Your task to perform on an android device: Open Wikipedia Image 0: 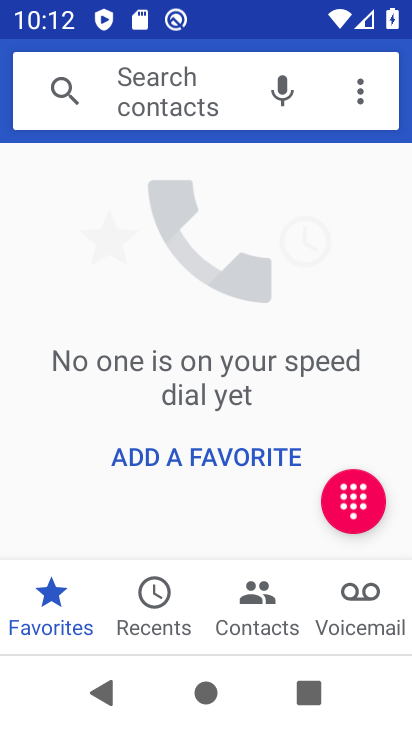
Step 0: press back button
Your task to perform on an android device: Open Wikipedia Image 1: 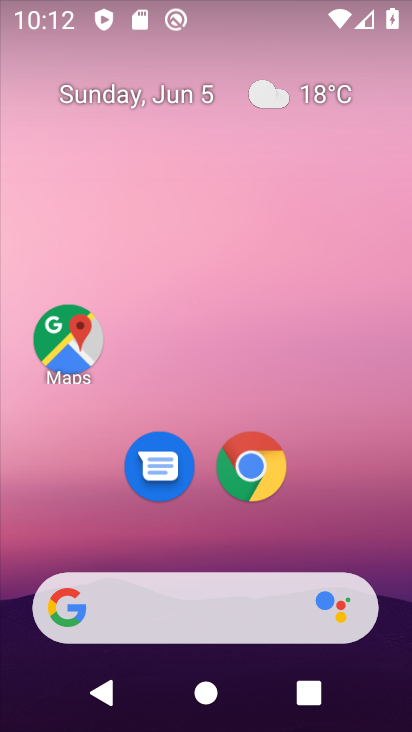
Step 1: click (255, 462)
Your task to perform on an android device: Open Wikipedia Image 2: 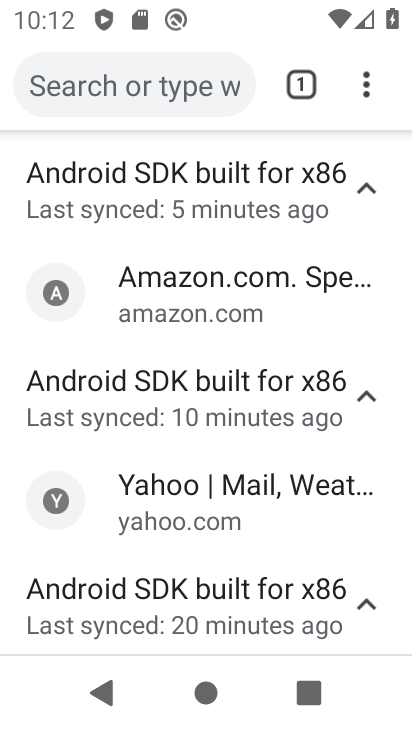
Step 2: click (214, 94)
Your task to perform on an android device: Open Wikipedia Image 3: 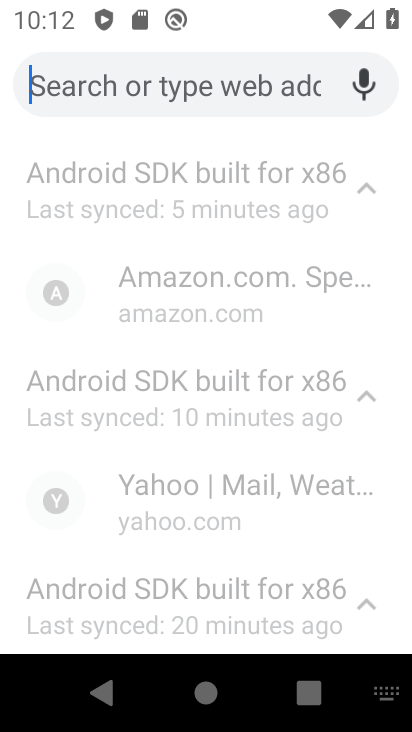
Step 3: type "Wikipedia"
Your task to perform on an android device: Open Wikipedia Image 4: 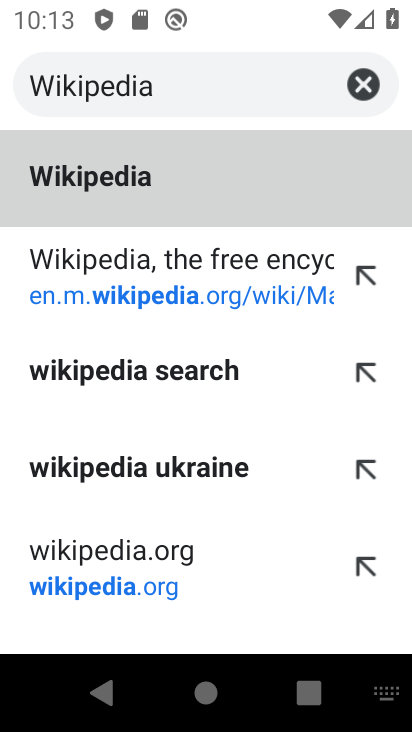
Step 4: click (135, 189)
Your task to perform on an android device: Open Wikipedia Image 5: 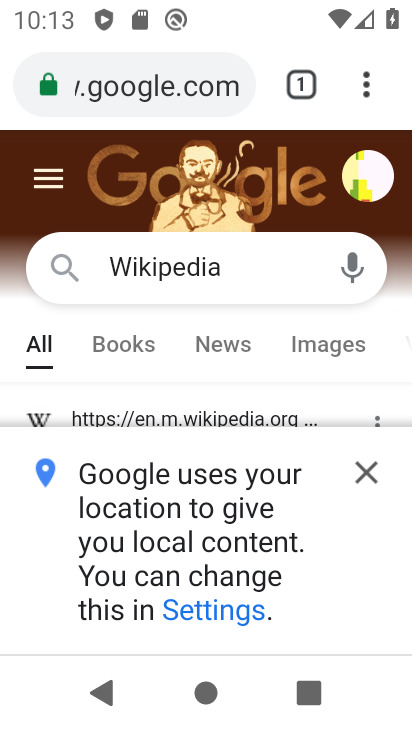
Step 5: click (366, 470)
Your task to perform on an android device: Open Wikipedia Image 6: 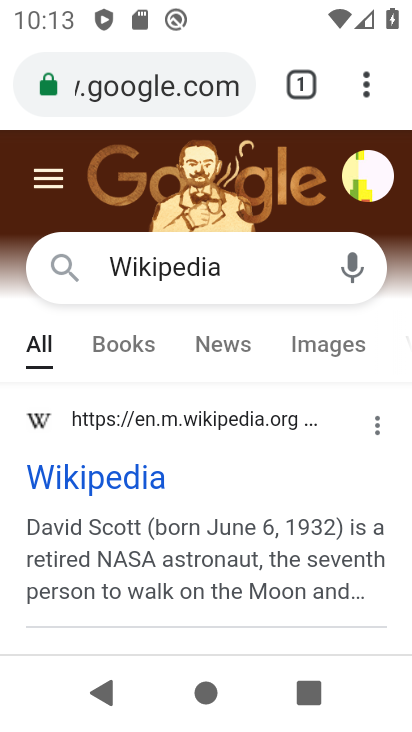
Step 6: click (127, 473)
Your task to perform on an android device: Open Wikipedia Image 7: 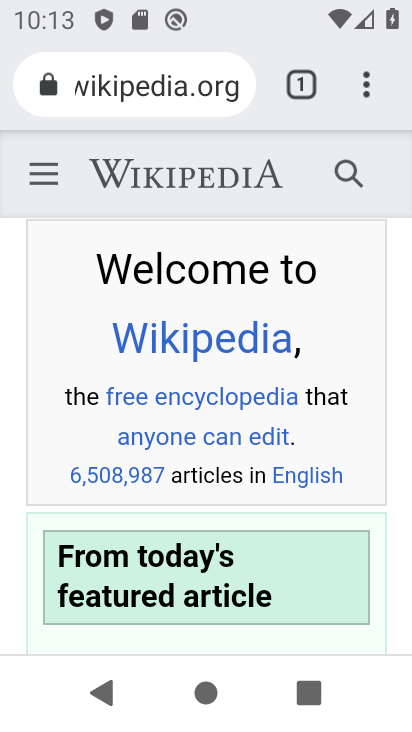
Step 7: task complete